Your task to perform on an android device: install app "Google Find My Device" Image 0: 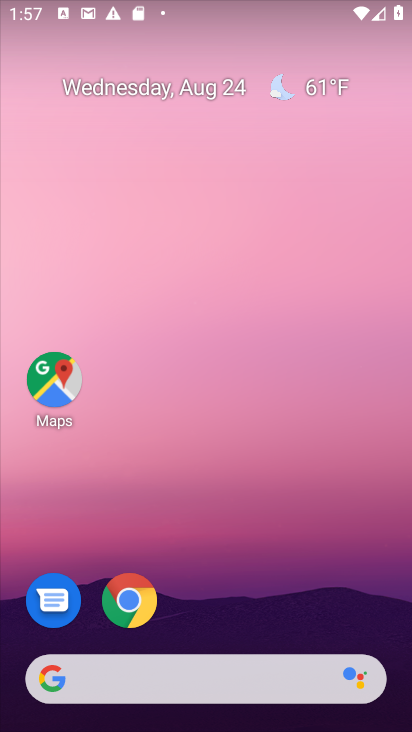
Step 0: drag from (232, 617) to (290, 43)
Your task to perform on an android device: install app "Google Find My Device" Image 1: 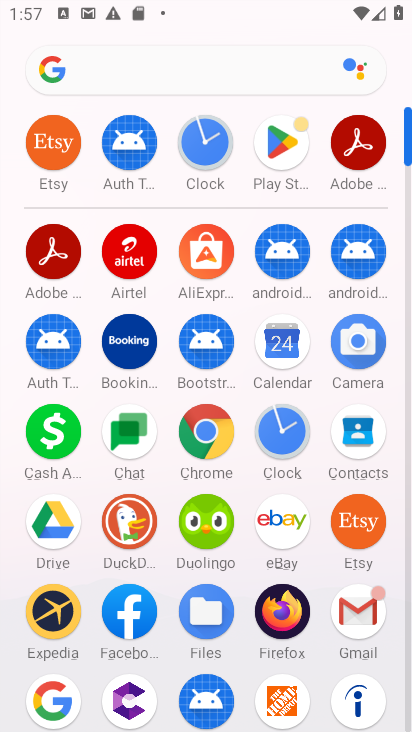
Step 1: click (280, 148)
Your task to perform on an android device: install app "Google Find My Device" Image 2: 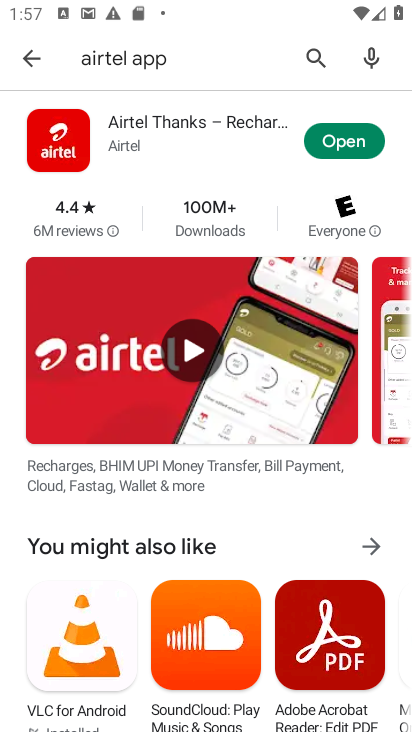
Step 2: click (331, 64)
Your task to perform on an android device: install app "Google Find My Device" Image 3: 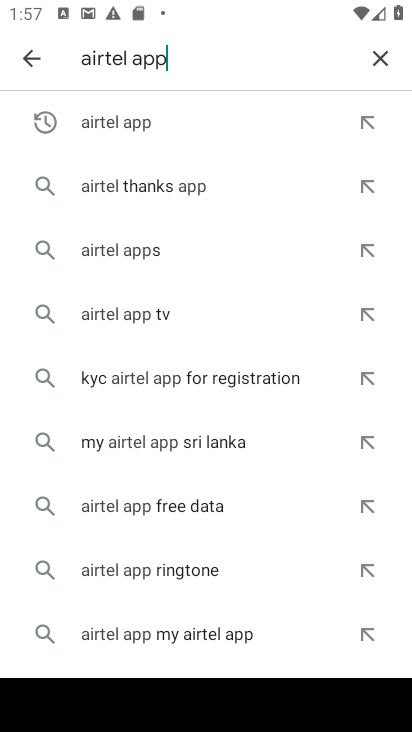
Step 3: click (383, 63)
Your task to perform on an android device: install app "Google Find My Device" Image 4: 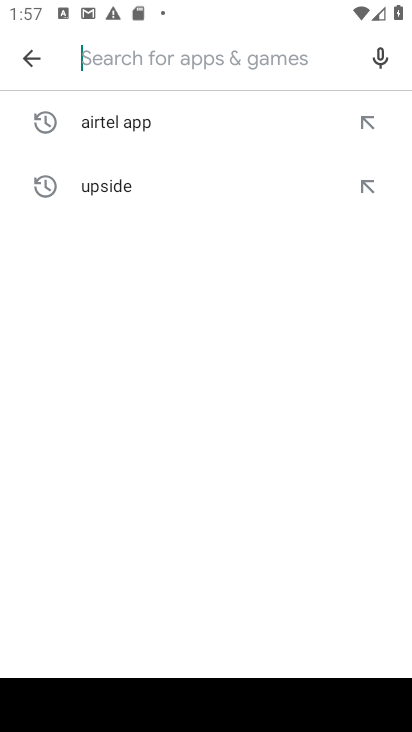
Step 4: type "google find my app"
Your task to perform on an android device: install app "Google Find My Device" Image 5: 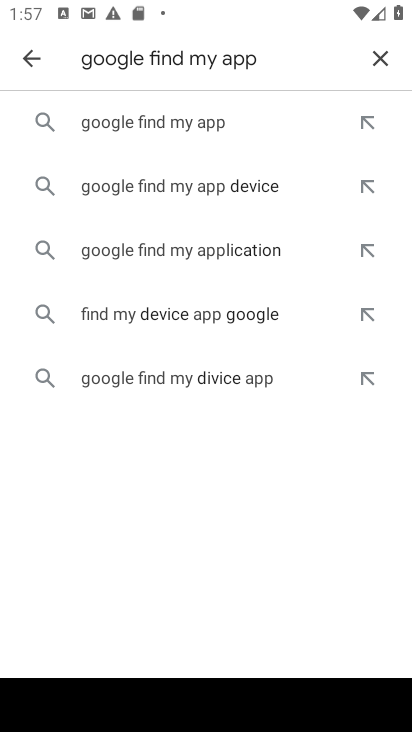
Step 5: click (220, 133)
Your task to perform on an android device: install app "Google Find My Device" Image 6: 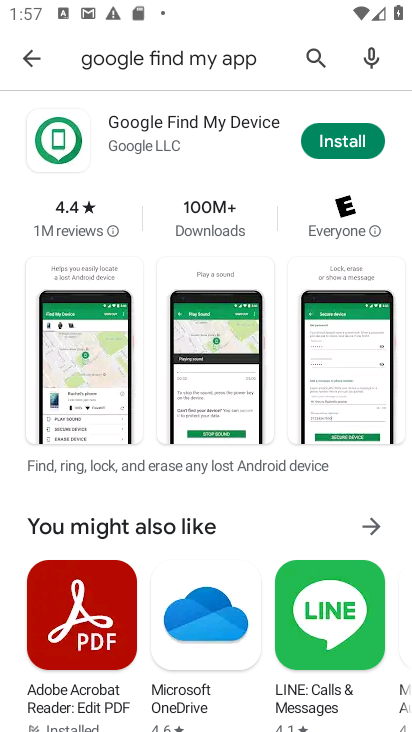
Step 6: click (317, 142)
Your task to perform on an android device: install app "Google Find My Device" Image 7: 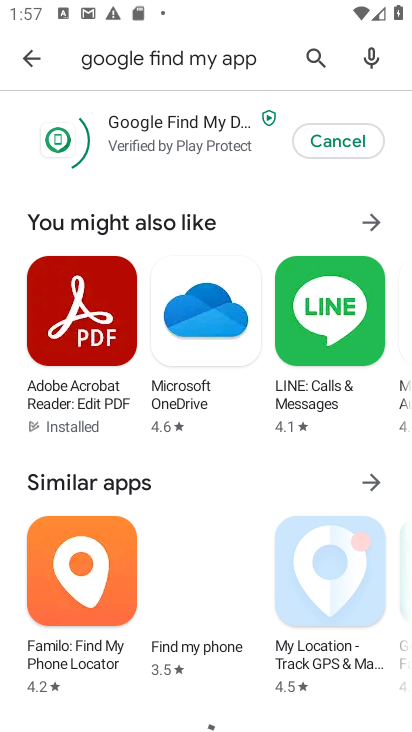
Step 7: task complete